Your task to perform on an android device: change the upload size in google photos Image 0: 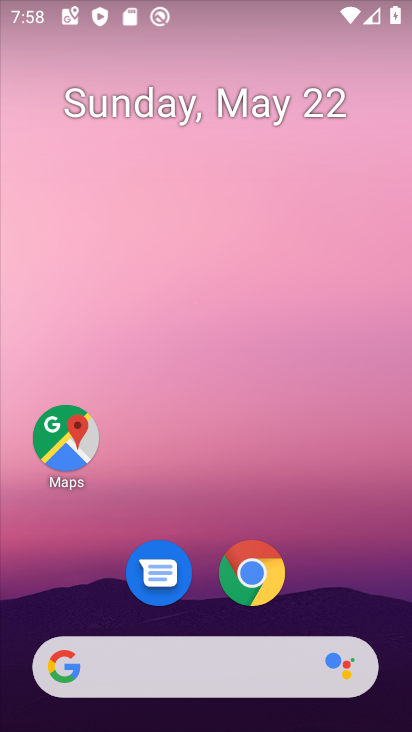
Step 0: drag from (350, 571) to (322, 201)
Your task to perform on an android device: change the upload size in google photos Image 1: 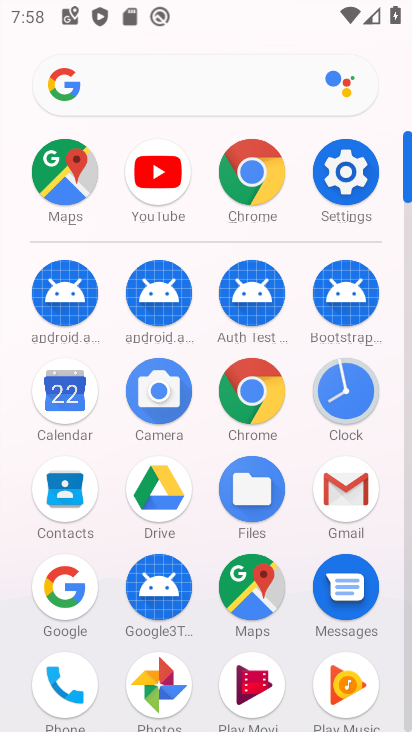
Step 1: click (168, 687)
Your task to perform on an android device: change the upload size in google photos Image 2: 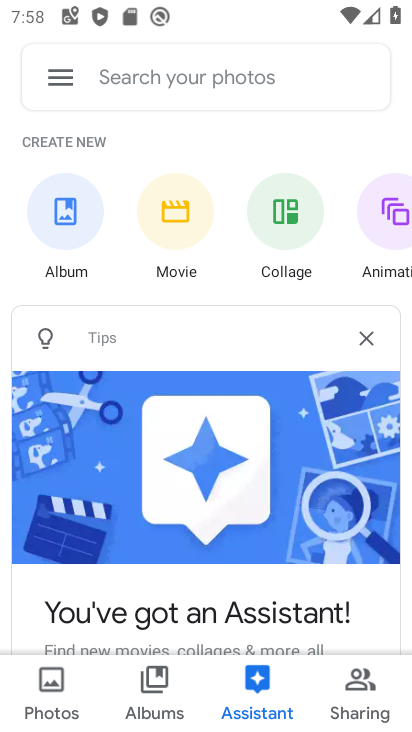
Step 2: drag from (148, 626) to (210, 339)
Your task to perform on an android device: change the upload size in google photos Image 3: 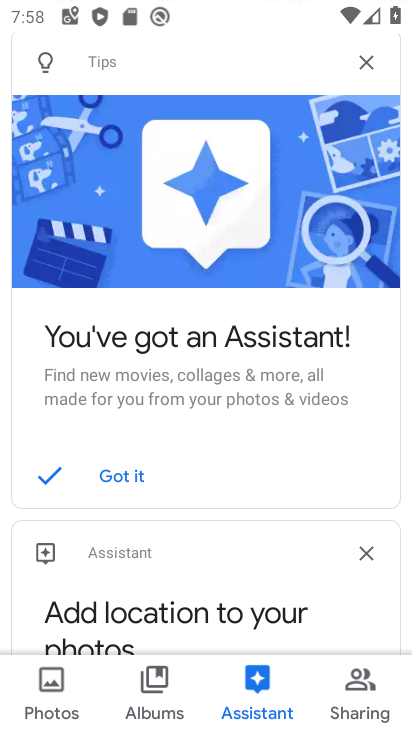
Step 3: click (58, 693)
Your task to perform on an android device: change the upload size in google photos Image 4: 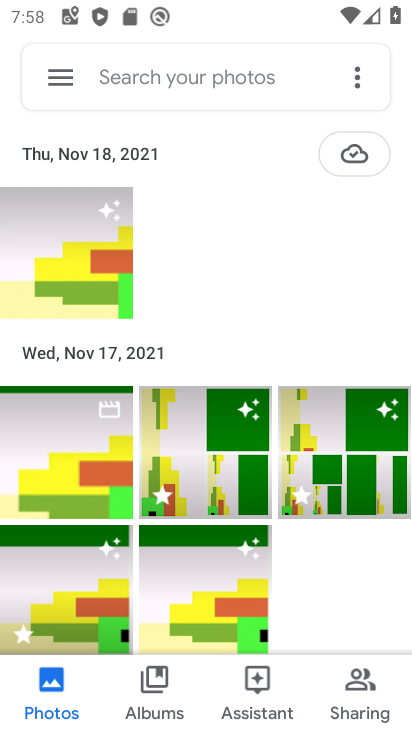
Step 4: click (57, 88)
Your task to perform on an android device: change the upload size in google photos Image 5: 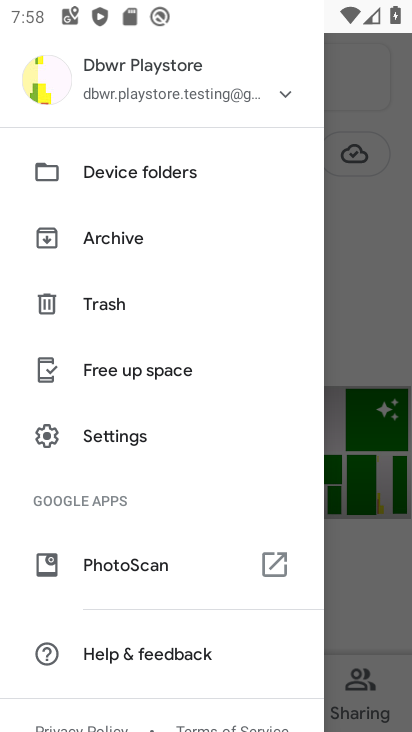
Step 5: click (120, 425)
Your task to perform on an android device: change the upload size in google photos Image 6: 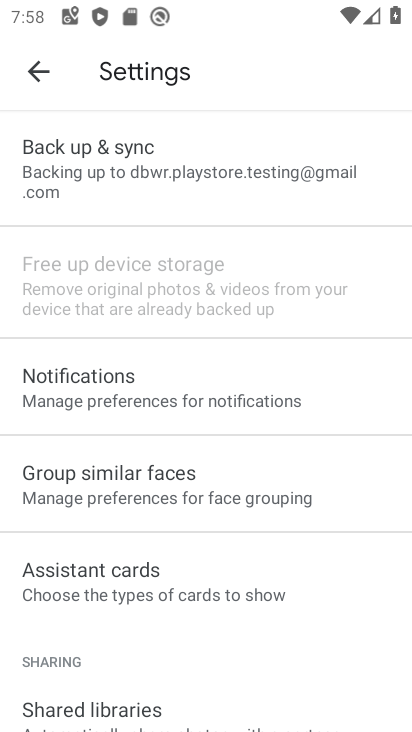
Step 6: click (165, 158)
Your task to perform on an android device: change the upload size in google photos Image 7: 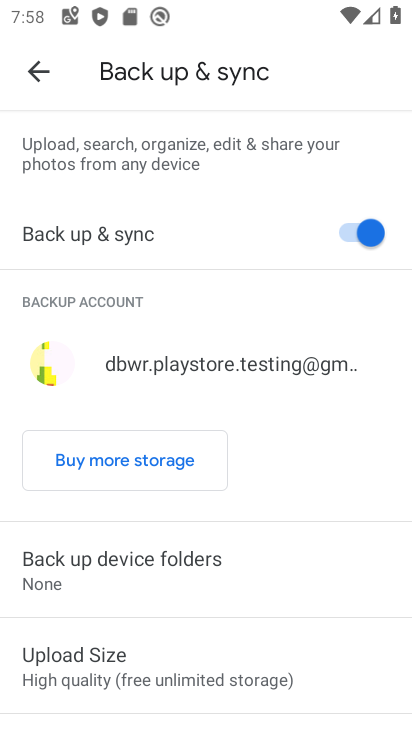
Step 7: click (215, 661)
Your task to perform on an android device: change the upload size in google photos Image 8: 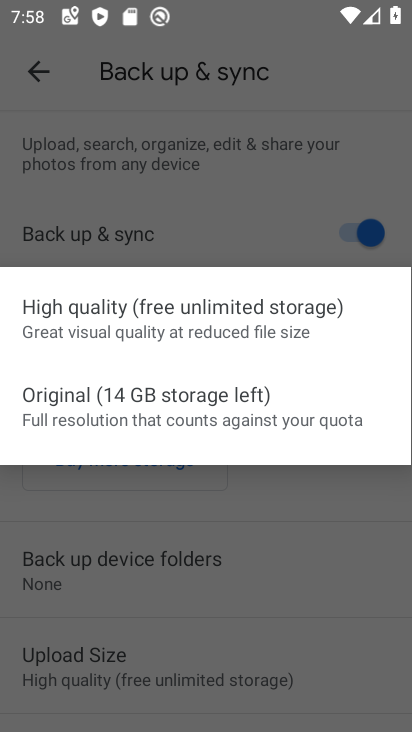
Step 8: click (178, 411)
Your task to perform on an android device: change the upload size in google photos Image 9: 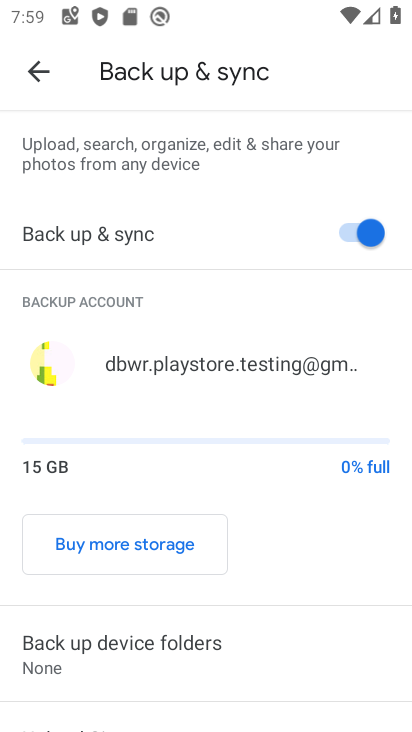
Step 9: task complete